Your task to perform on an android device: toggle pop-ups in chrome Image 0: 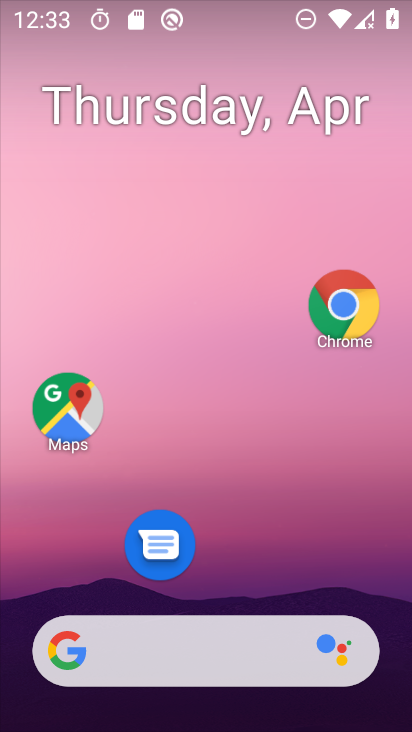
Step 0: drag from (239, 601) to (273, 248)
Your task to perform on an android device: toggle pop-ups in chrome Image 1: 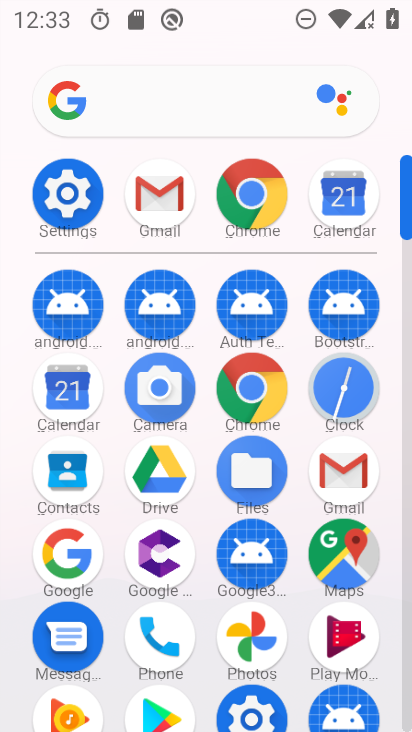
Step 1: click (263, 402)
Your task to perform on an android device: toggle pop-ups in chrome Image 2: 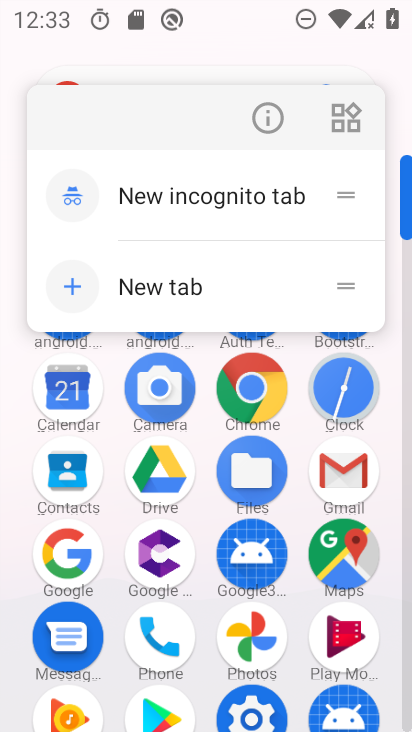
Step 2: click (254, 396)
Your task to perform on an android device: toggle pop-ups in chrome Image 3: 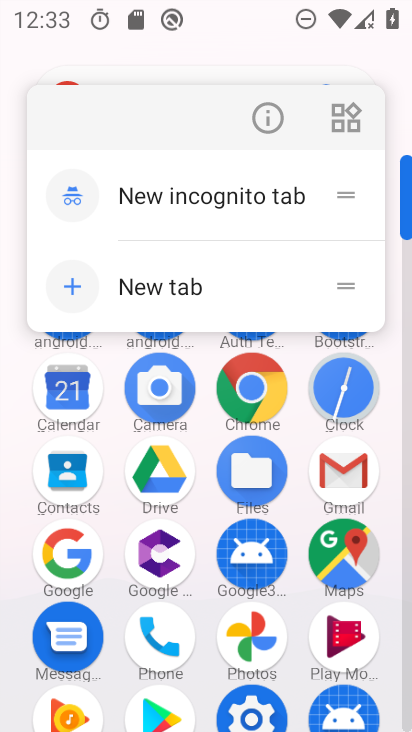
Step 3: click (238, 414)
Your task to perform on an android device: toggle pop-ups in chrome Image 4: 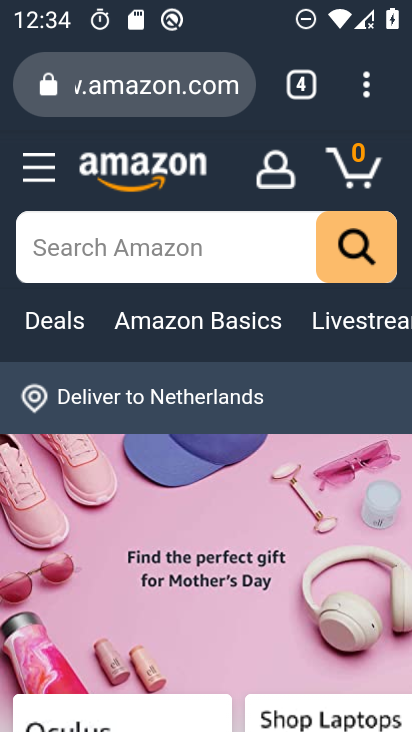
Step 4: click (362, 115)
Your task to perform on an android device: toggle pop-ups in chrome Image 5: 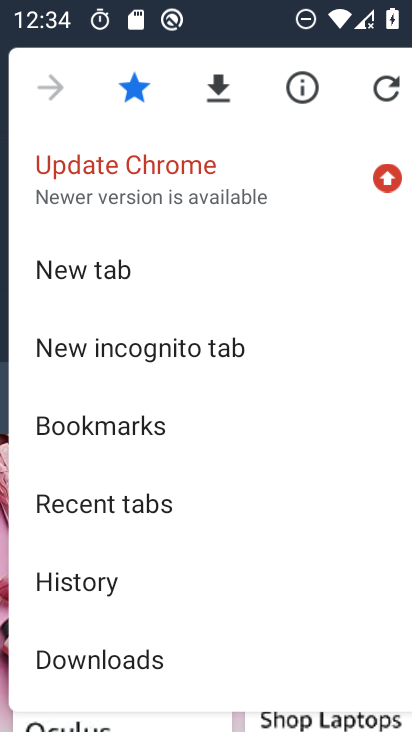
Step 5: drag from (324, 435) to (339, 71)
Your task to perform on an android device: toggle pop-ups in chrome Image 6: 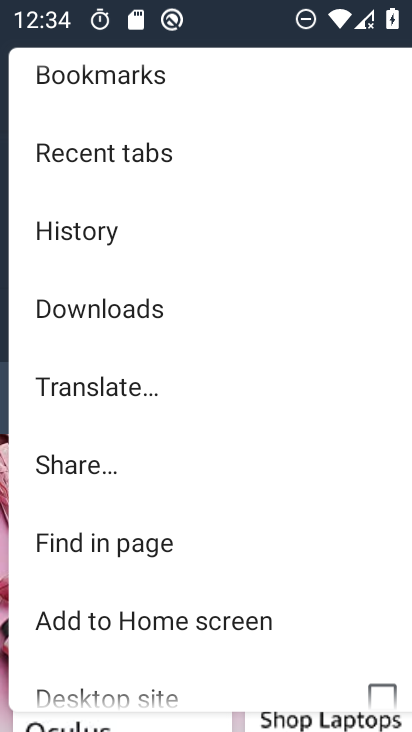
Step 6: drag from (306, 425) to (333, 26)
Your task to perform on an android device: toggle pop-ups in chrome Image 7: 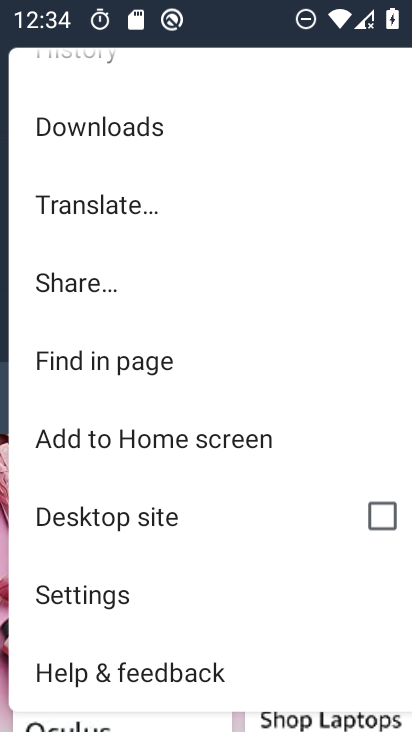
Step 7: click (203, 594)
Your task to perform on an android device: toggle pop-ups in chrome Image 8: 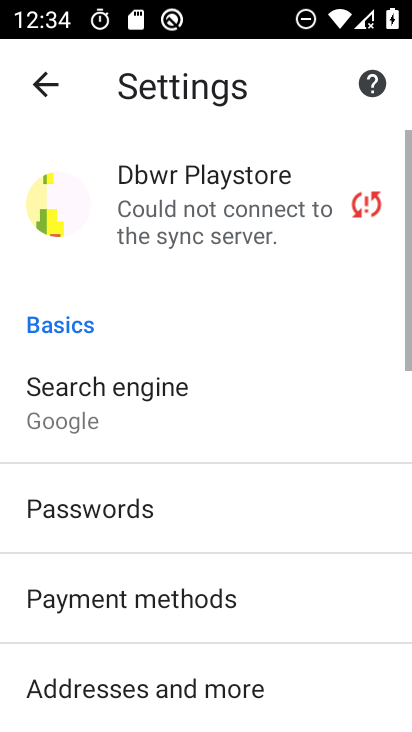
Step 8: drag from (203, 594) to (239, 167)
Your task to perform on an android device: toggle pop-ups in chrome Image 9: 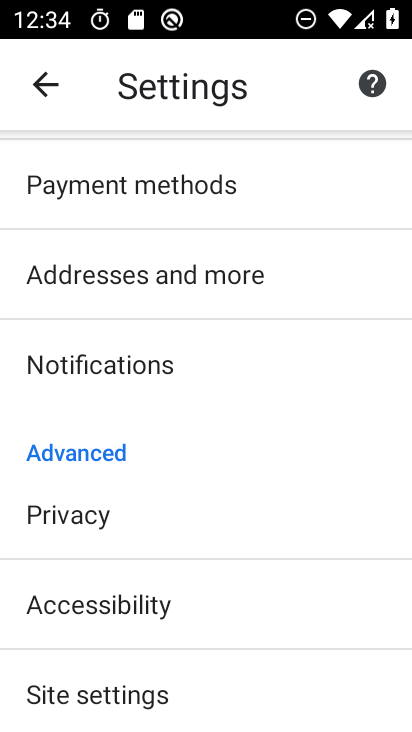
Step 9: drag from (231, 591) to (213, 341)
Your task to perform on an android device: toggle pop-ups in chrome Image 10: 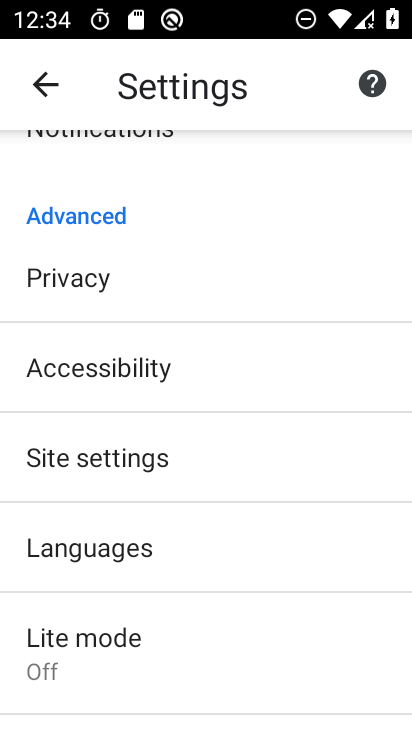
Step 10: click (180, 457)
Your task to perform on an android device: toggle pop-ups in chrome Image 11: 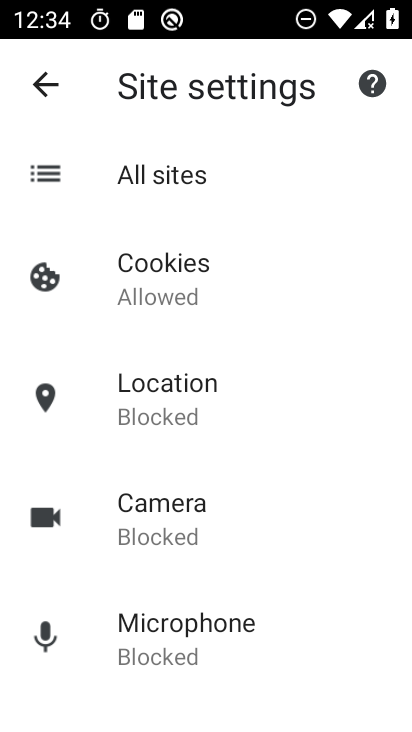
Step 11: drag from (199, 570) to (221, 361)
Your task to perform on an android device: toggle pop-ups in chrome Image 12: 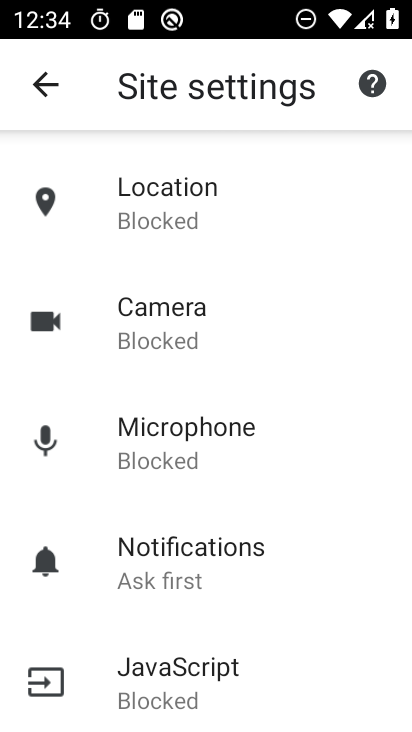
Step 12: drag from (224, 635) to (226, 274)
Your task to perform on an android device: toggle pop-ups in chrome Image 13: 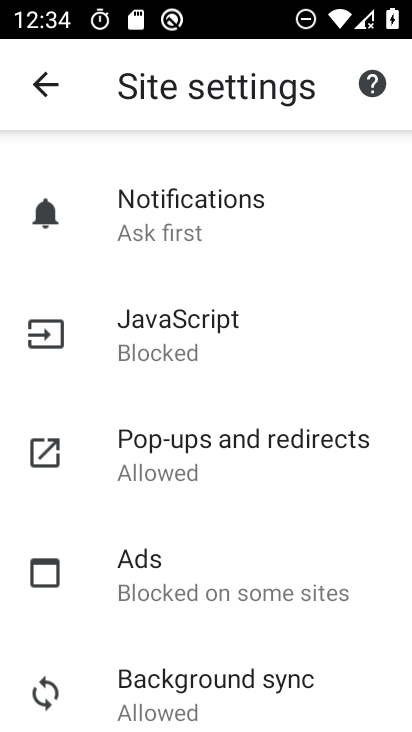
Step 13: click (242, 476)
Your task to perform on an android device: toggle pop-ups in chrome Image 14: 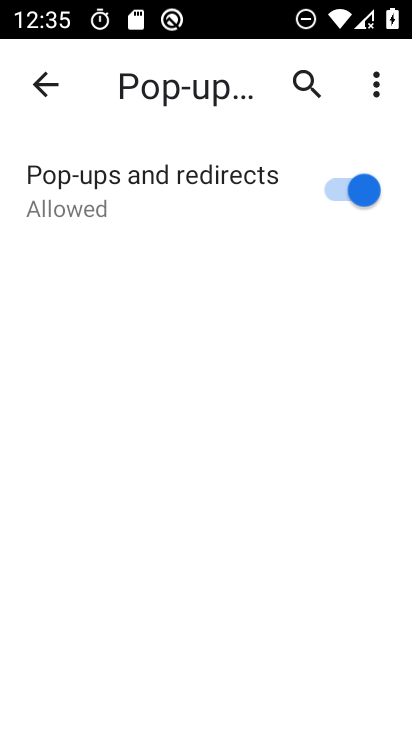
Step 14: click (336, 190)
Your task to perform on an android device: toggle pop-ups in chrome Image 15: 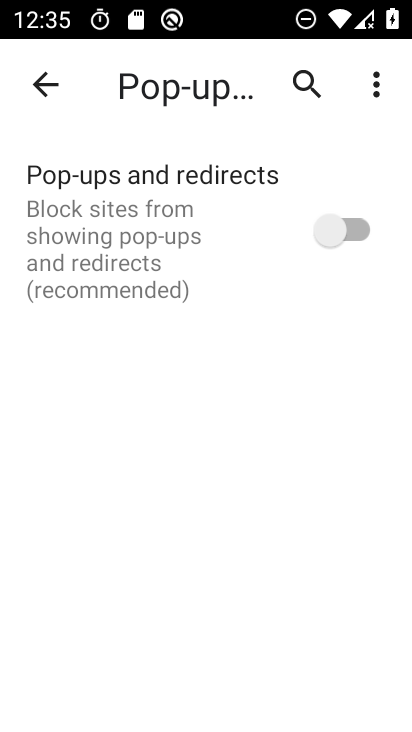
Step 15: task complete